Your task to perform on an android device: Clear the cart on amazon. Add dell xps to the cart on amazon, then select checkout. Image 0: 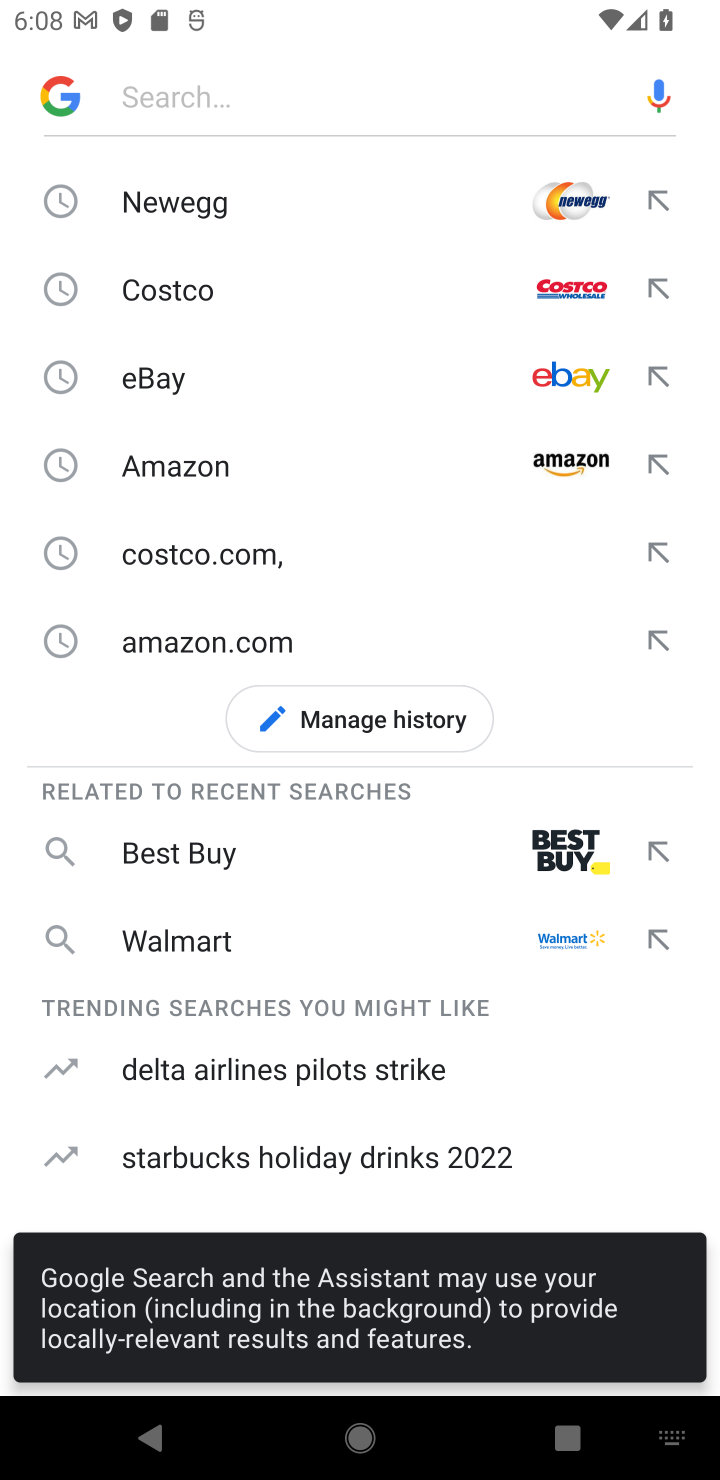
Step 0: press home button
Your task to perform on an android device: Clear the cart on amazon. Add dell xps to the cart on amazon, then select checkout. Image 1: 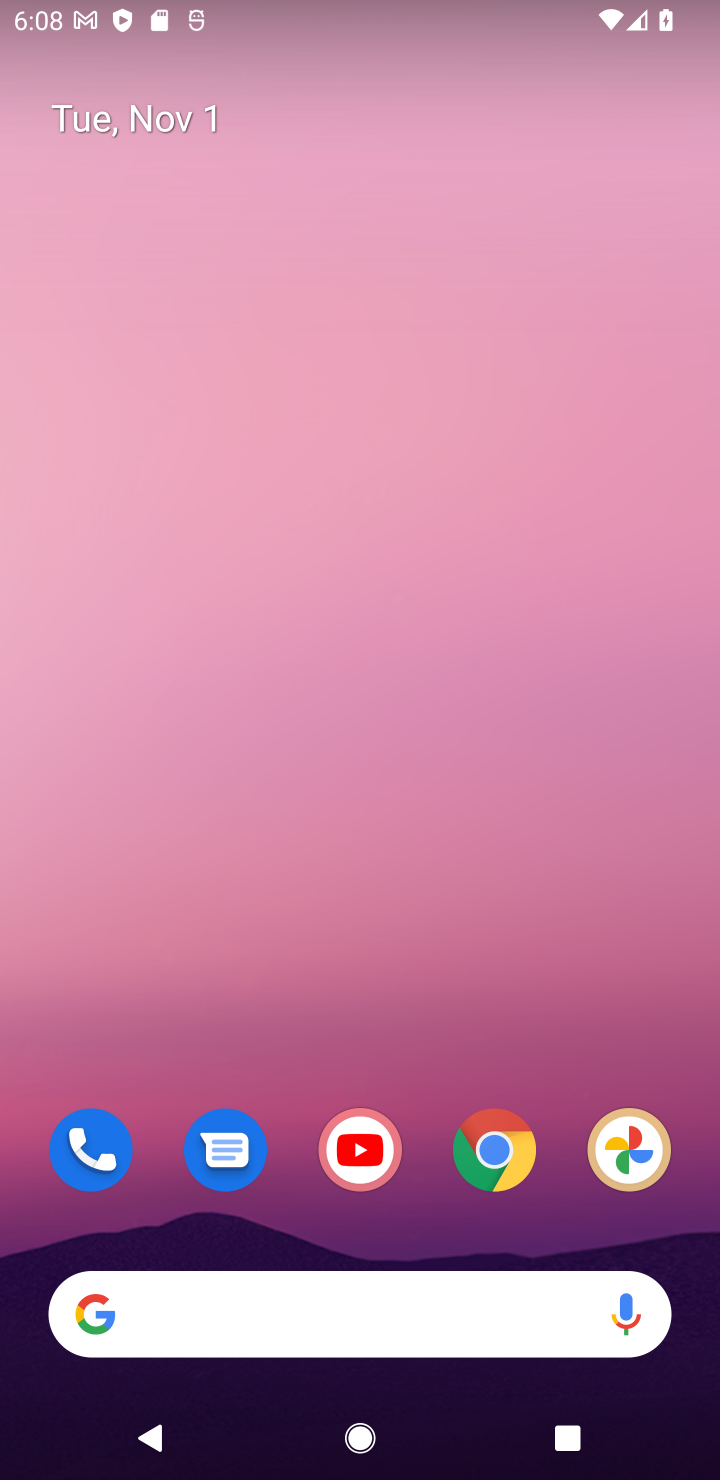
Step 1: click (492, 1148)
Your task to perform on an android device: Clear the cart on amazon. Add dell xps to the cart on amazon, then select checkout. Image 2: 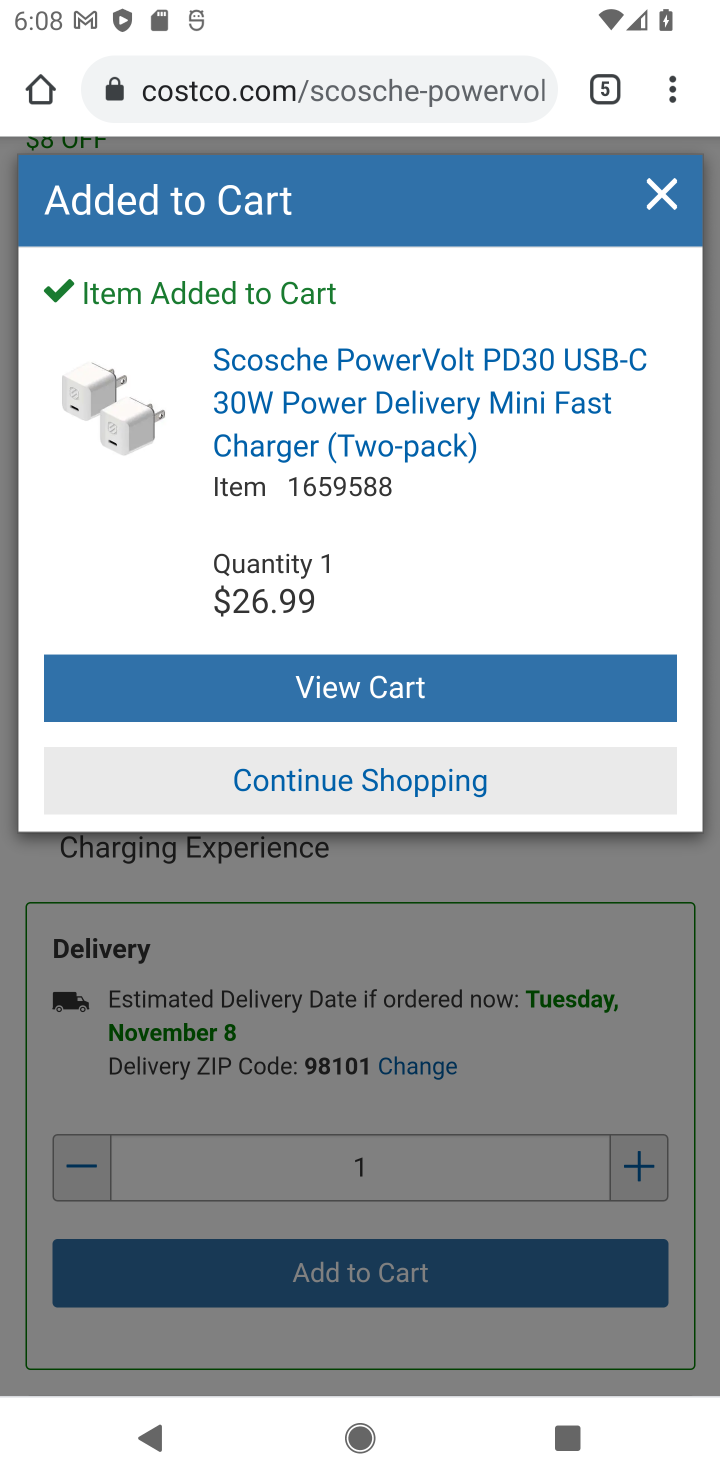
Step 2: click (598, 93)
Your task to perform on an android device: Clear the cart on amazon. Add dell xps to the cart on amazon, then select checkout. Image 3: 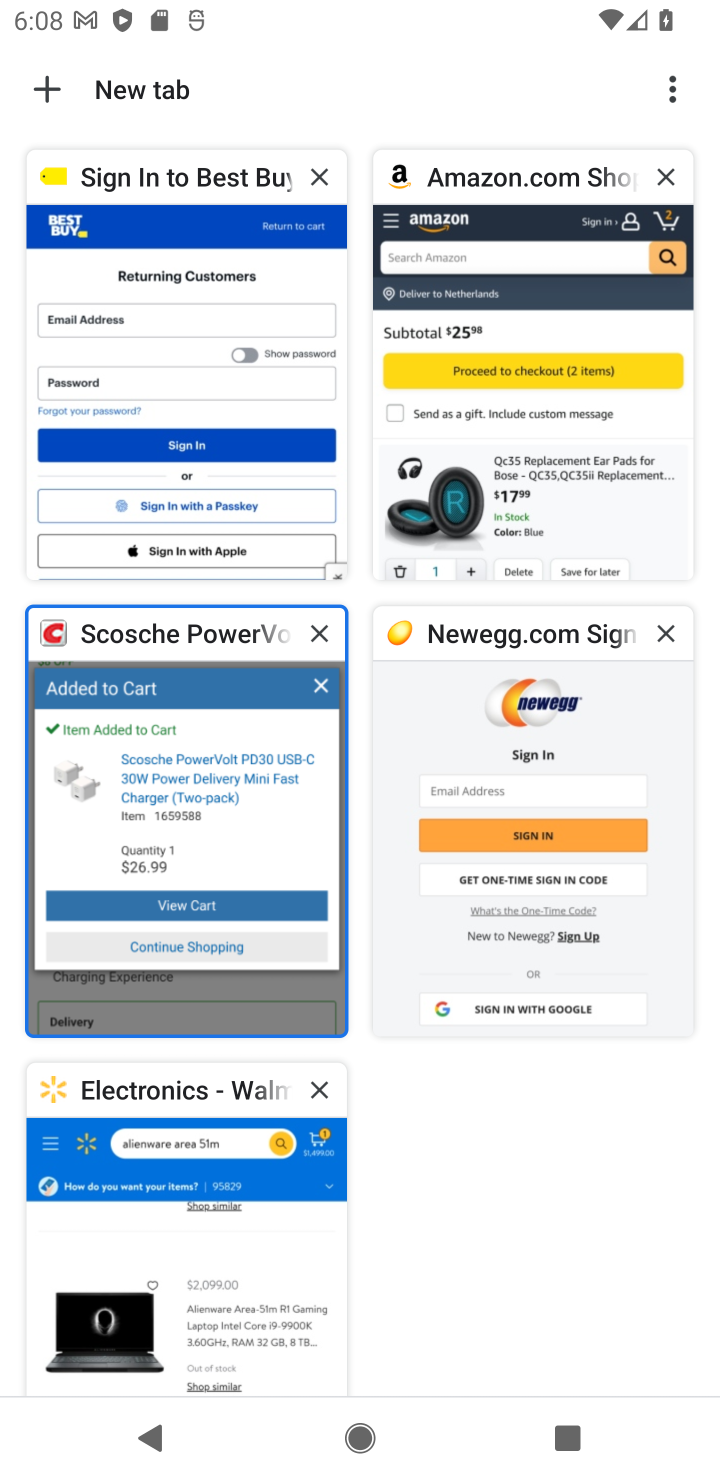
Step 3: click (552, 335)
Your task to perform on an android device: Clear the cart on amazon. Add dell xps to the cart on amazon, then select checkout. Image 4: 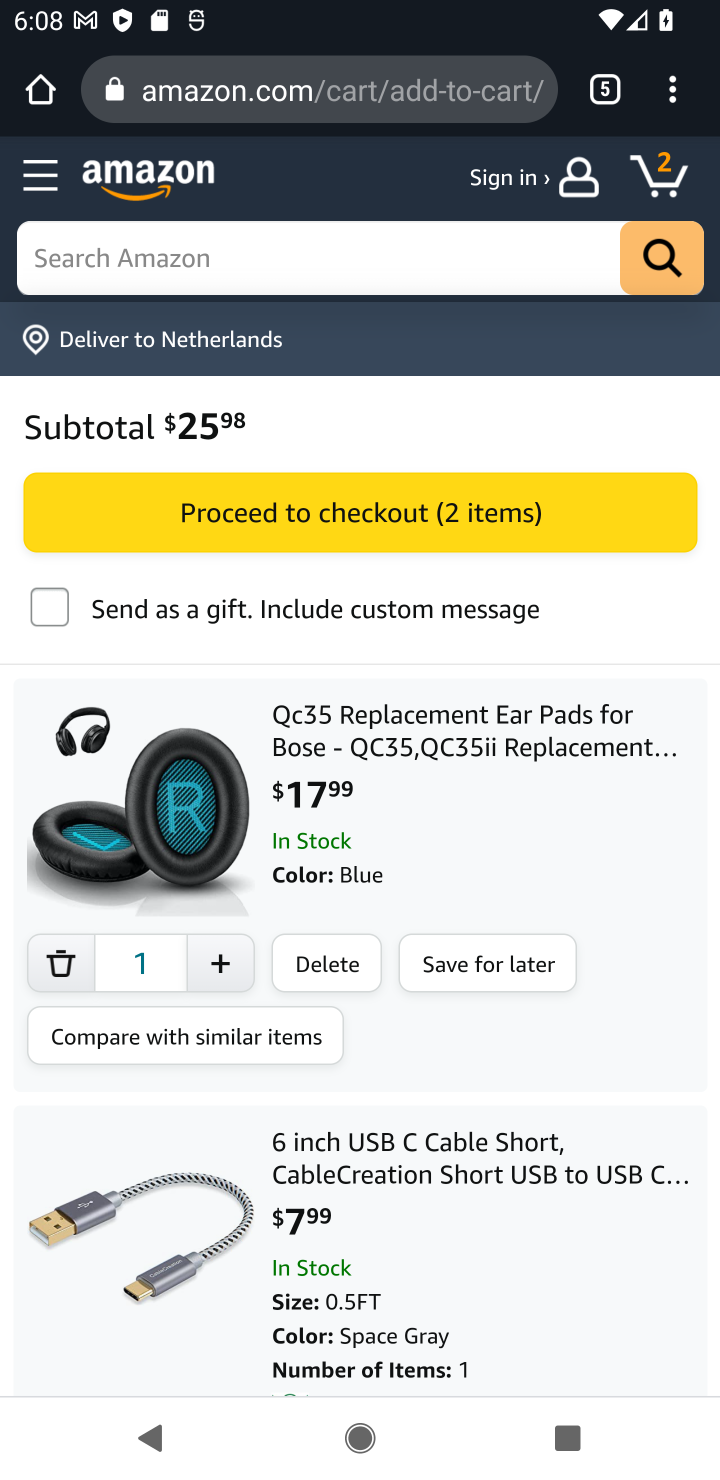
Step 4: click (320, 971)
Your task to perform on an android device: Clear the cart on amazon. Add dell xps to the cart on amazon, then select checkout. Image 5: 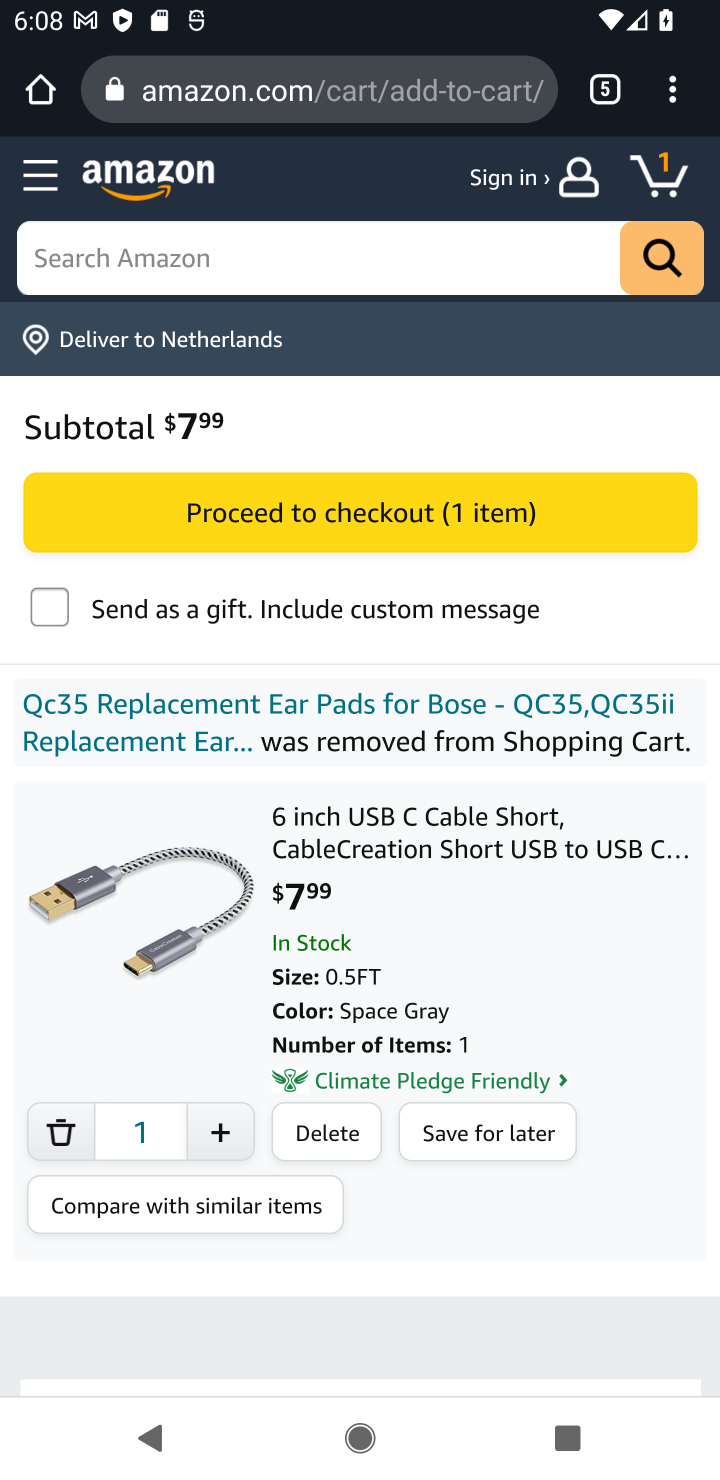
Step 5: click (319, 1131)
Your task to perform on an android device: Clear the cart on amazon. Add dell xps to the cart on amazon, then select checkout. Image 6: 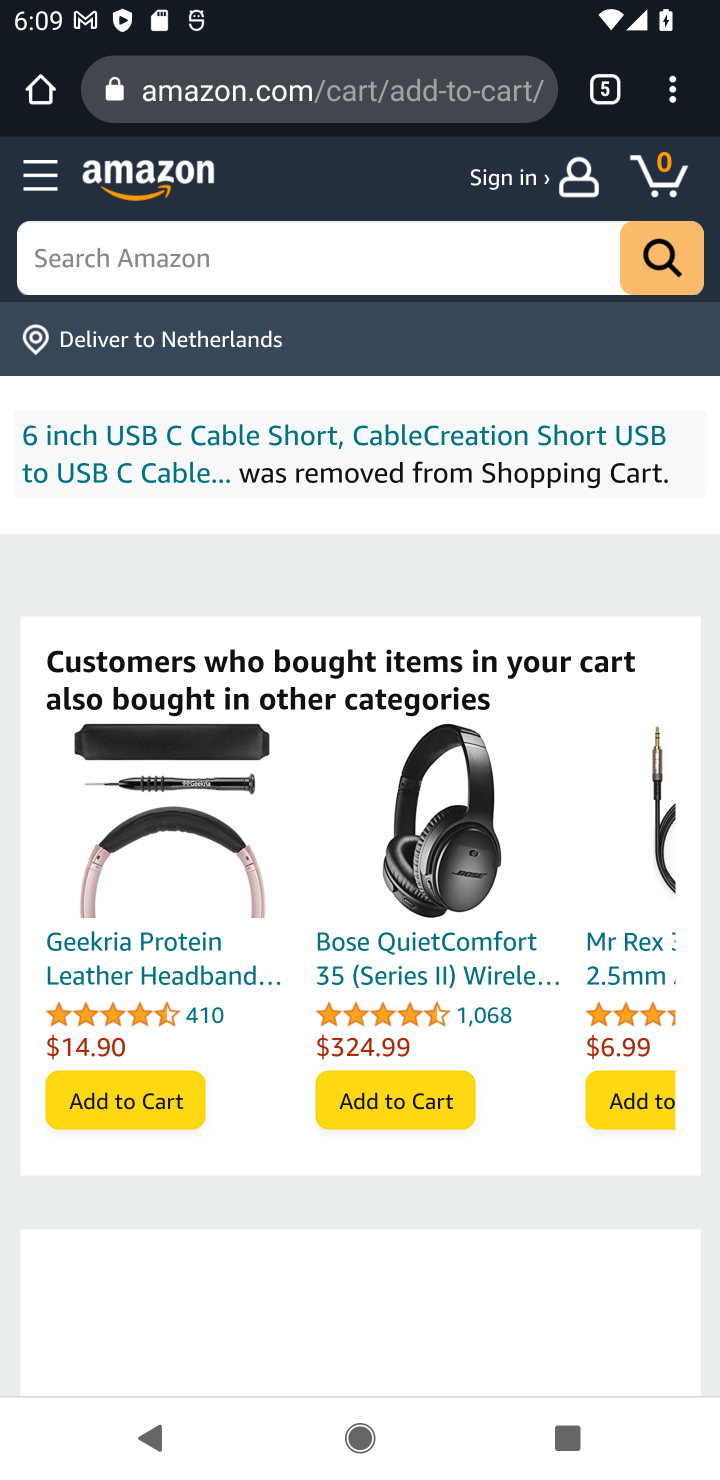
Step 6: click (395, 287)
Your task to perform on an android device: Clear the cart on amazon. Add dell xps to the cart on amazon, then select checkout. Image 7: 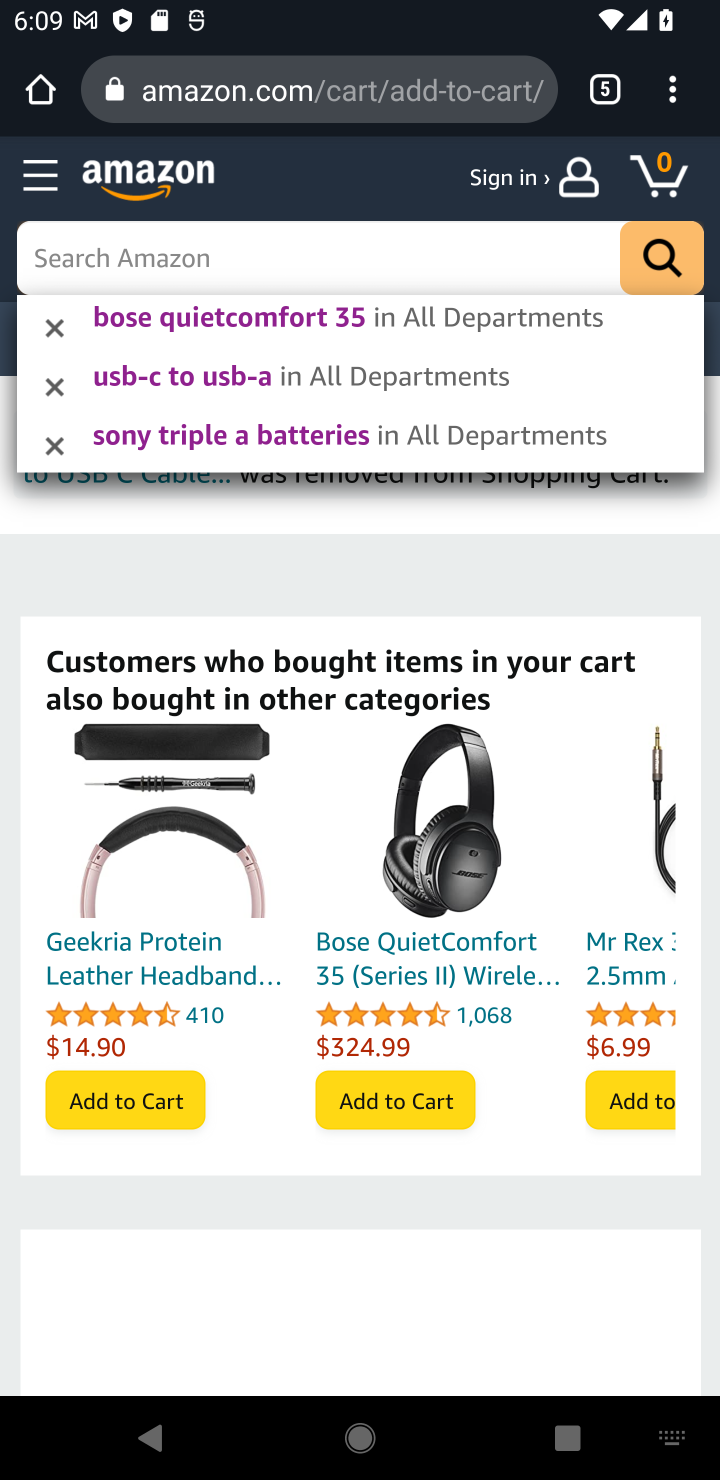
Step 7: type "dell xps"
Your task to perform on an android device: Clear the cart on amazon. Add dell xps to the cart on amazon, then select checkout. Image 8: 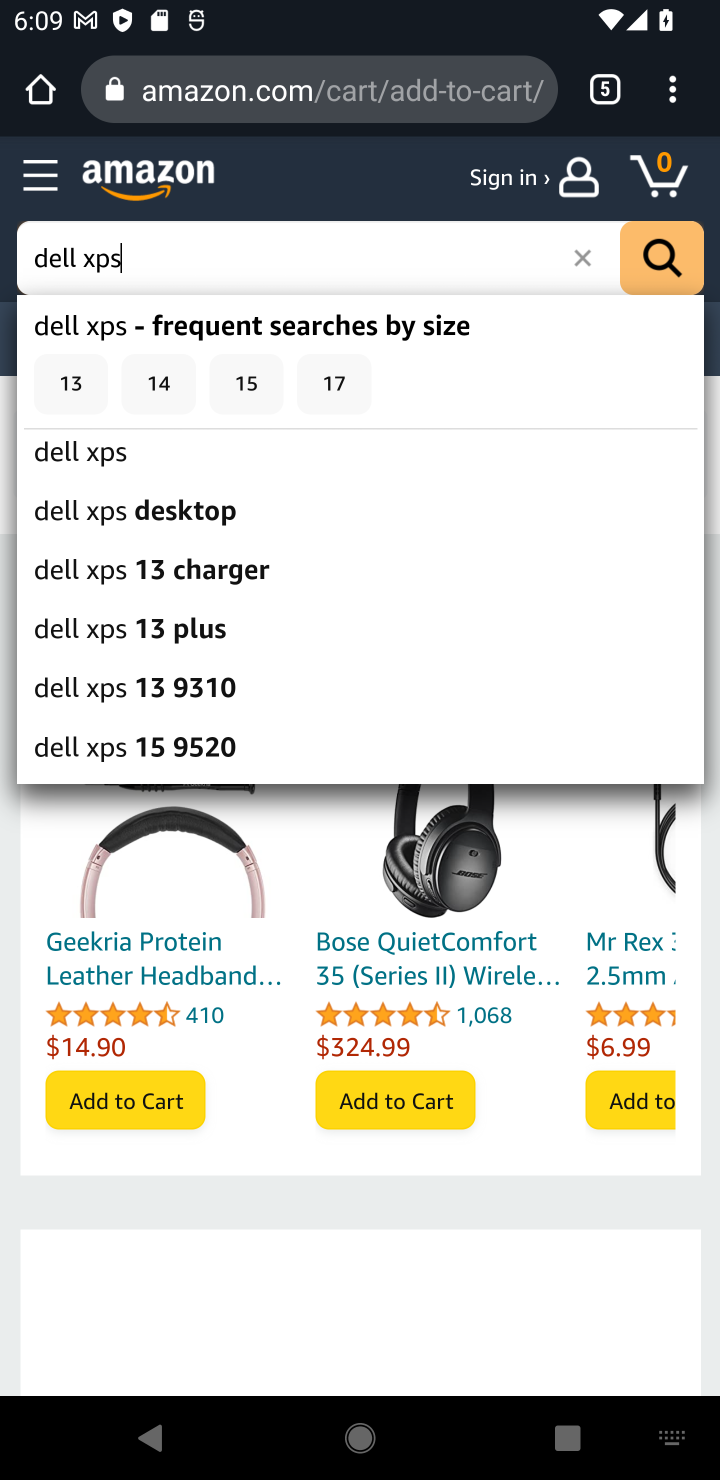
Step 8: click (76, 442)
Your task to perform on an android device: Clear the cart on amazon. Add dell xps to the cart on amazon, then select checkout. Image 9: 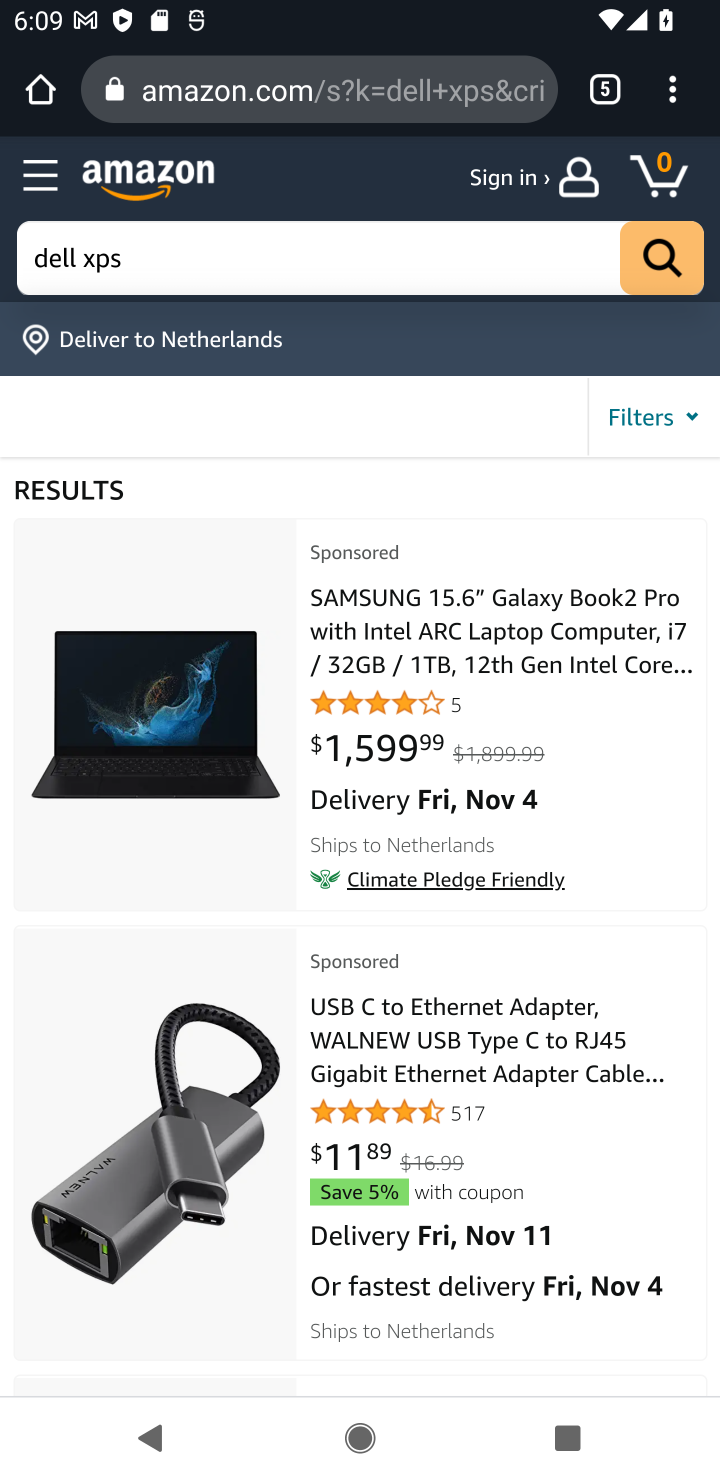
Step 9: drag from (504, 1085) to (618, 523)
Your task to perform on an android device: Clear the cart on amazon. Add dell xps to the cart on amazon, then select checkout. Image 10: 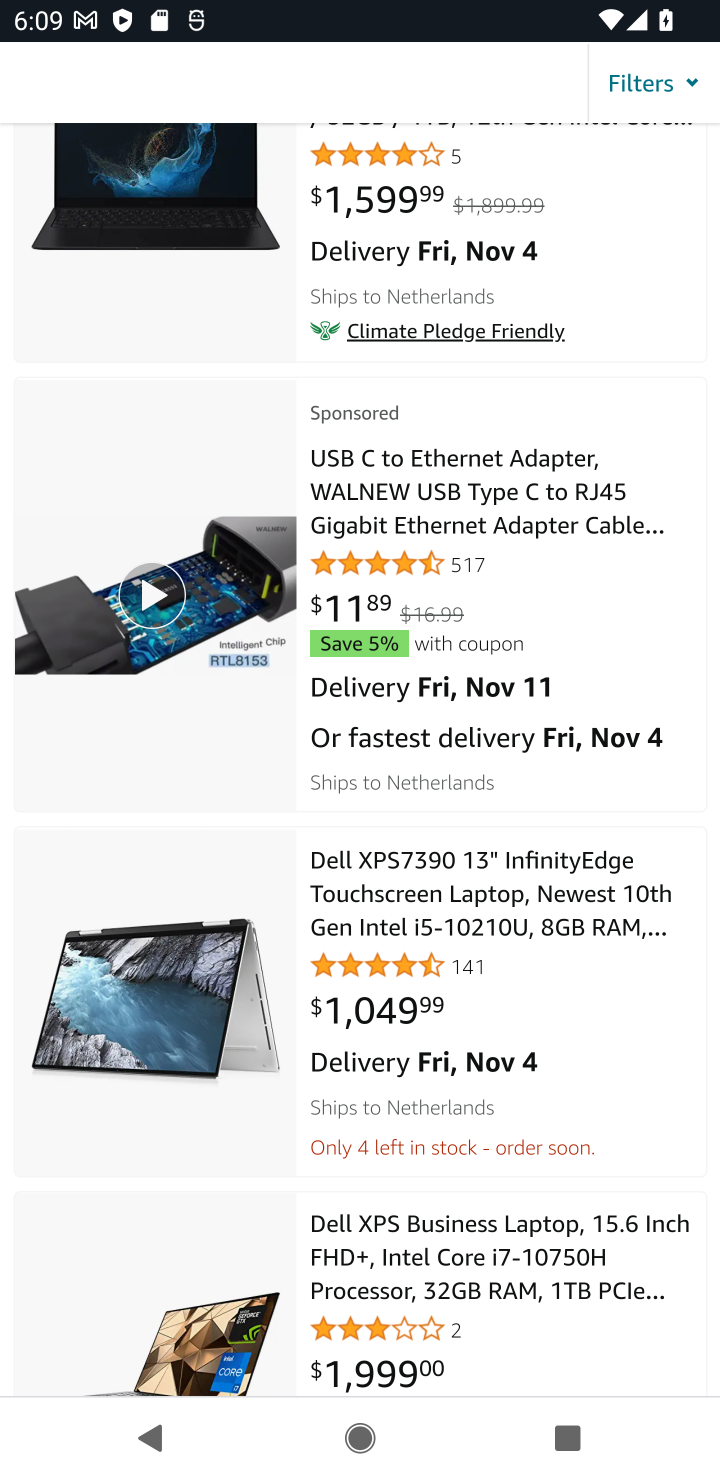
Step 10: click (471, 899)
Your task to perform on an android device: Clear the cart on amazon. Add dell xps to the cart on amazon, then select checkout. Image 11: 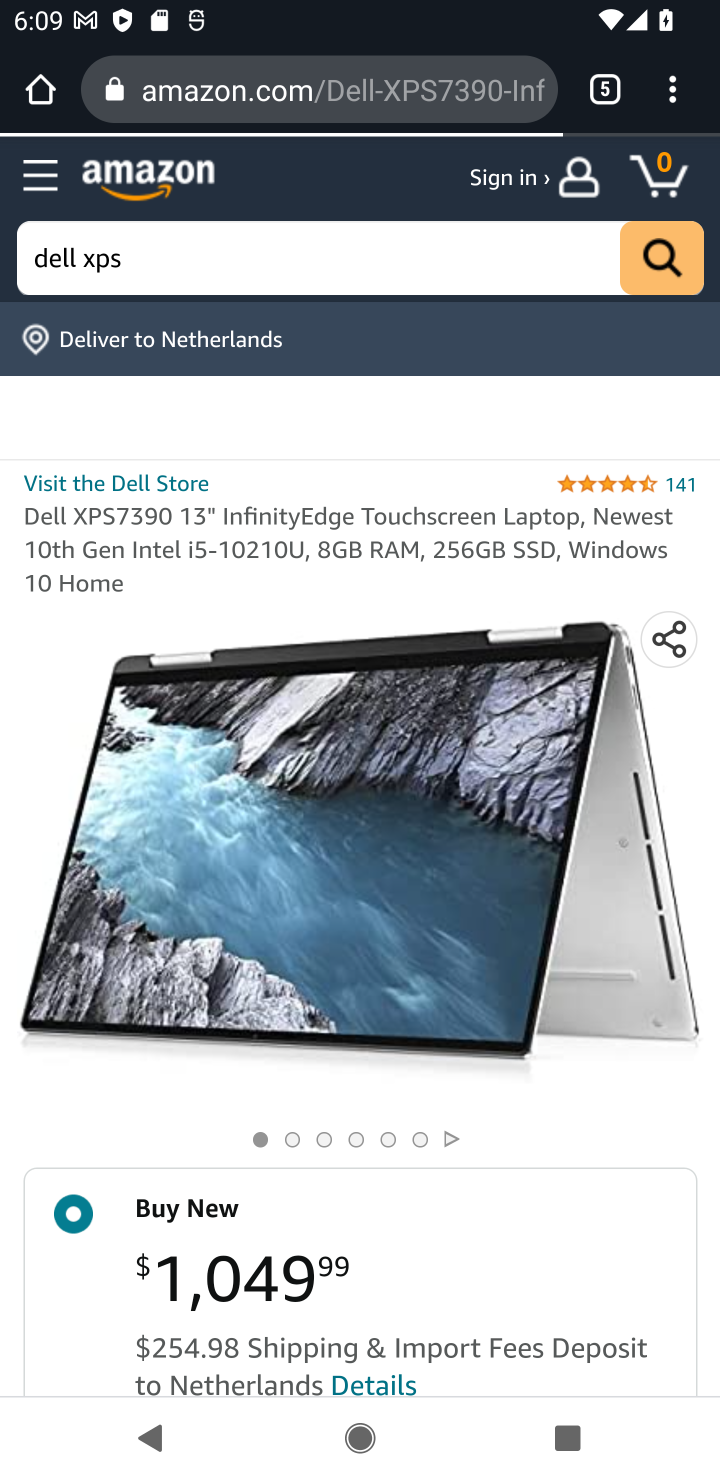
Step 11: drag from (422, 1240) to (538, 465)
Your task to perform on an android device: Clear the cart on amazon. Add dell xps to the cart on amazon, then select checkout. Image 12: 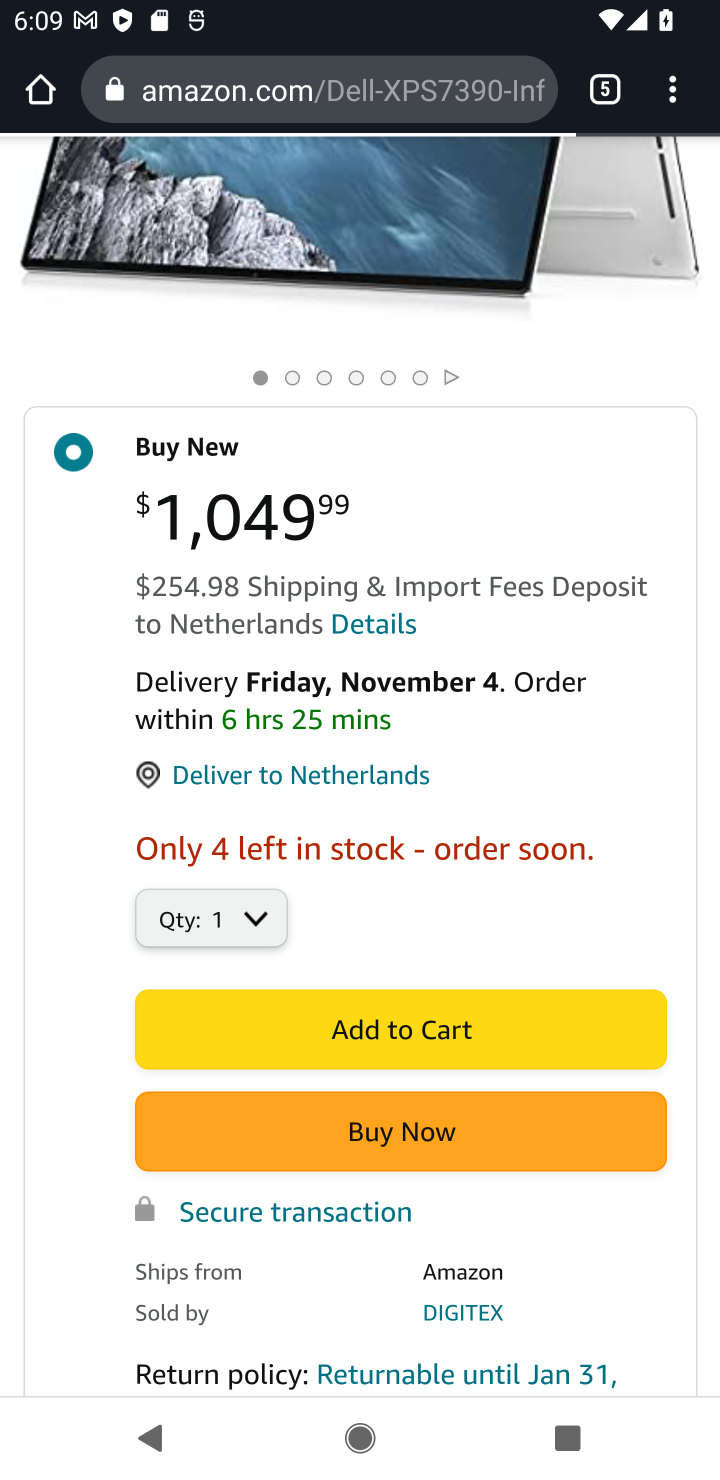
Step 12: click (489, 1035)
Your task to perform on an android device: Clear the cart on amazon. Add dell xps to the cart on amazon, then select checkout. Image 13: 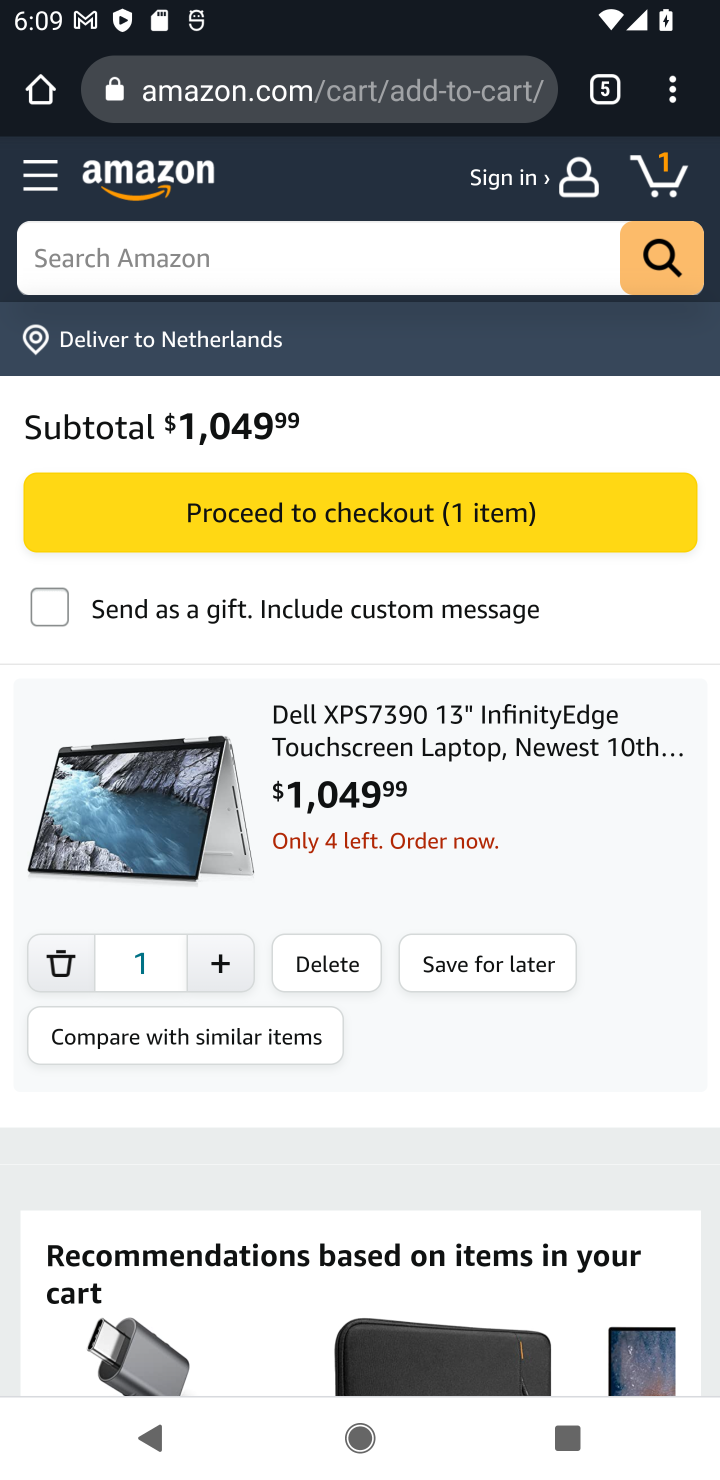
Step 13: click (475, 512)
Your task to perform on an android device: Clear the cart on amazon. Add dell xps to the cart on amazon, then select checkout. Image 14: 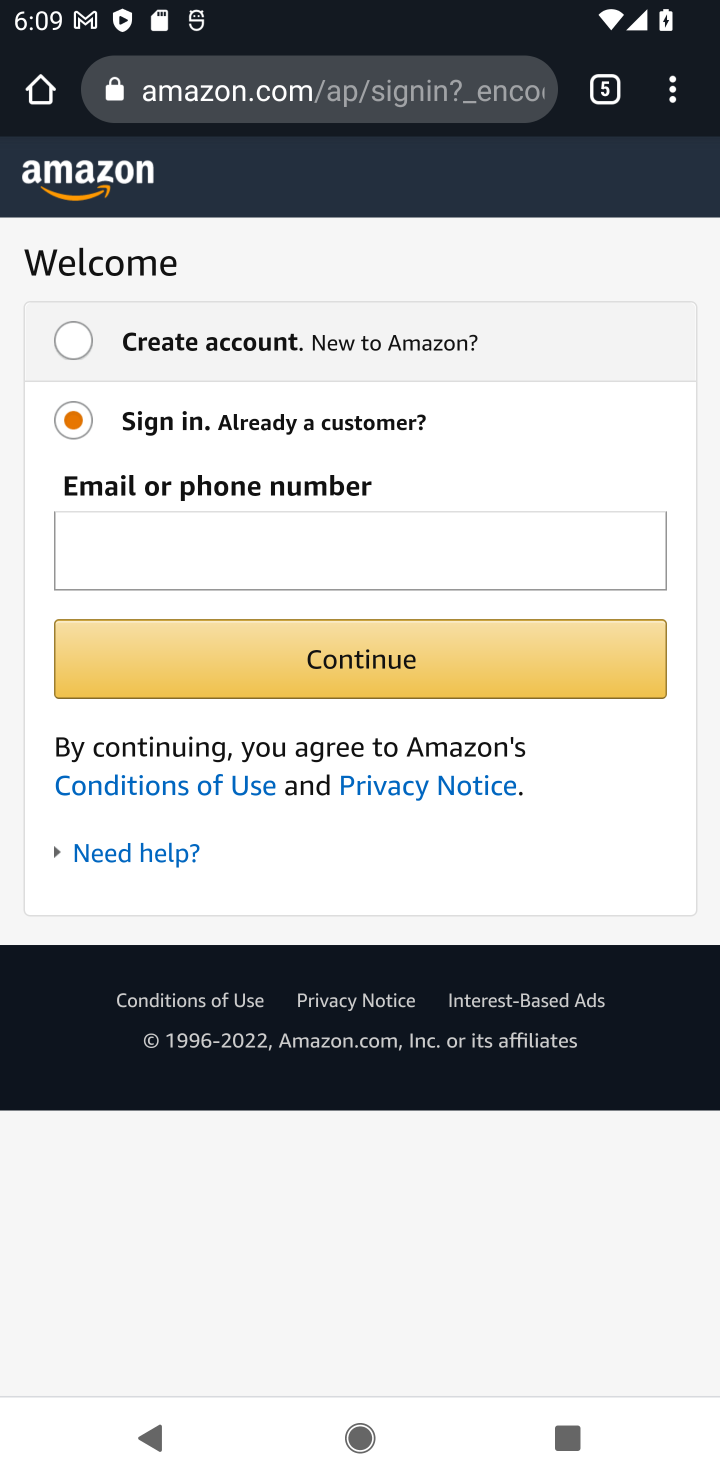
Step 14: task complete